Your task to perform on an android device: toggle sleep mode Image 0: 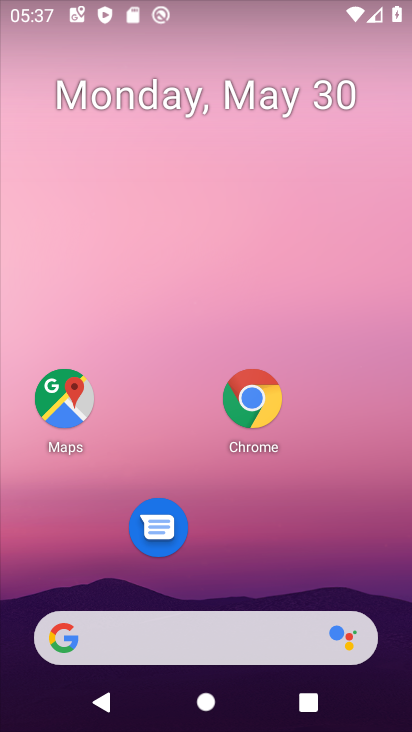
Step 0: drag from (245, 721) to (248, 535)
Your task to perform on an android device: toggle sleep mode Image 1: 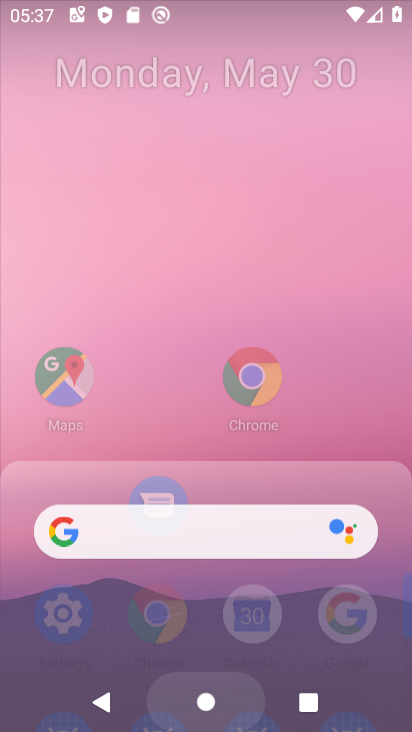
Step 1: click (244, 131)
Your task to perform on an android device: toggle sleep mode Image 2: 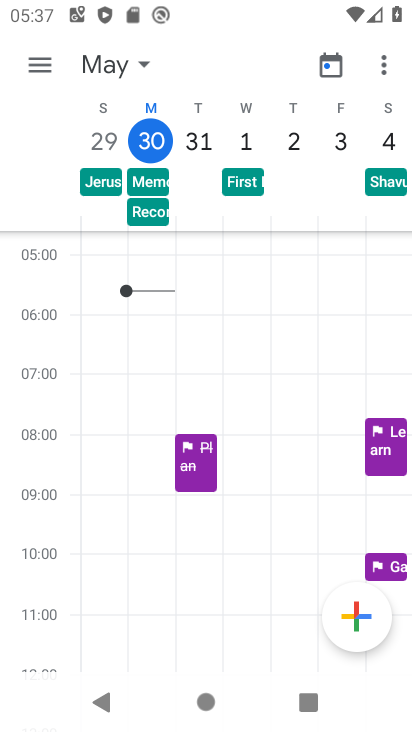
Step 2: press home button
Your task to perform on an android device: toggle sleep mode Image 3: 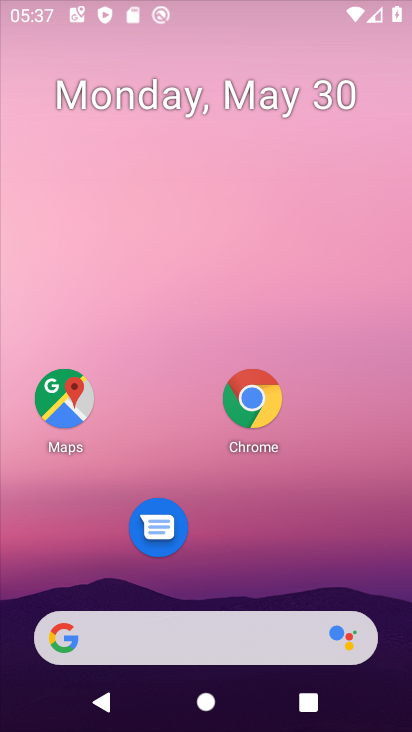
Step 3: drag from (233, 723) to (238, 661)
Your task to perform on an android device: toggle sleep mode Image 4: 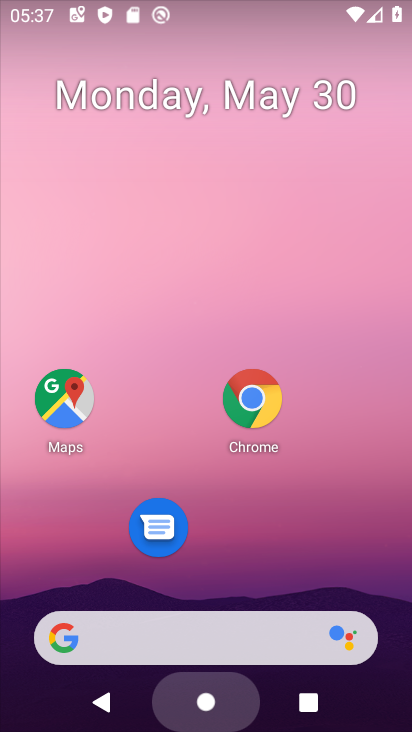
Step 4: click (238, 387)
Your task to perform on an android device: toggle sleep mode Image 5: 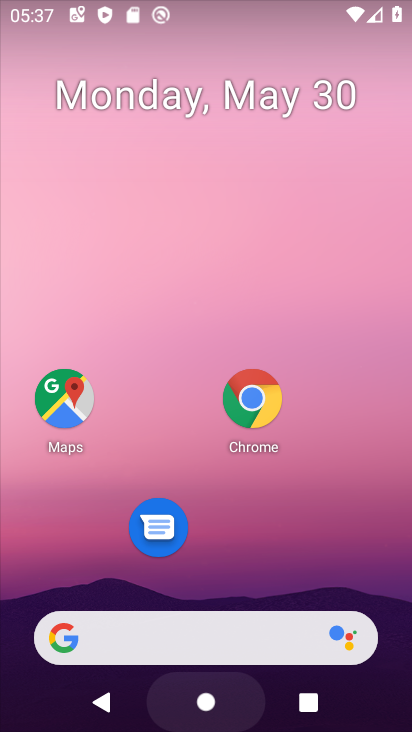
Step 5: click (238, 59)
Your task to perform on an android device: toggle sleep mode Image 6: 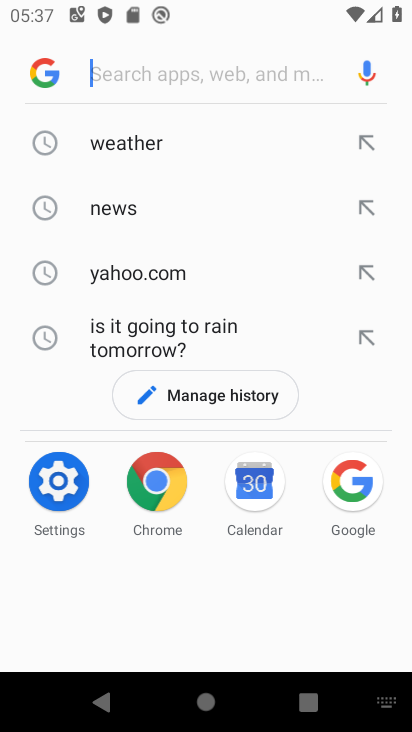
Step 6: press home button
Your task to perform on an android device: toggle sleep mode Image 7: 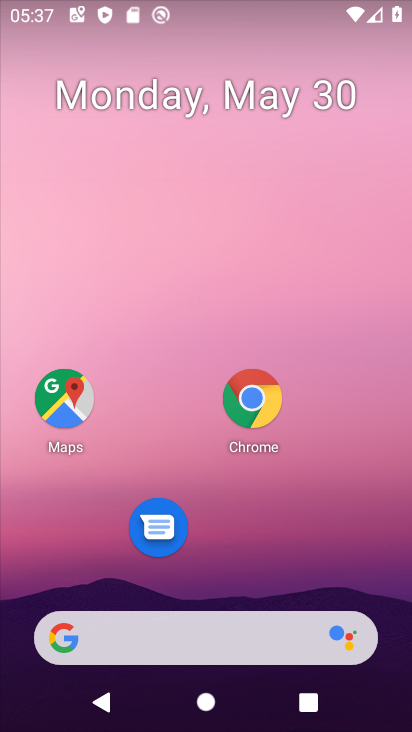
Step 7: drag from (239, 724) to (244, 35)
Your task to perform on an android device: toggle sleep mode Image 8: 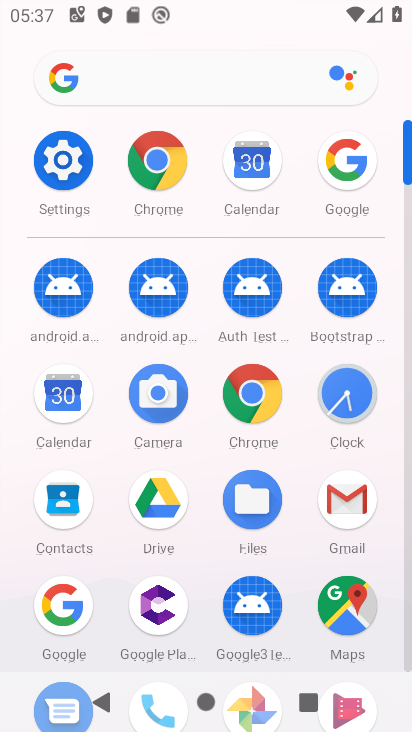
Step 8: click (48, 164)
Your task to perform on an android device: toggle sleep mode Image 9: 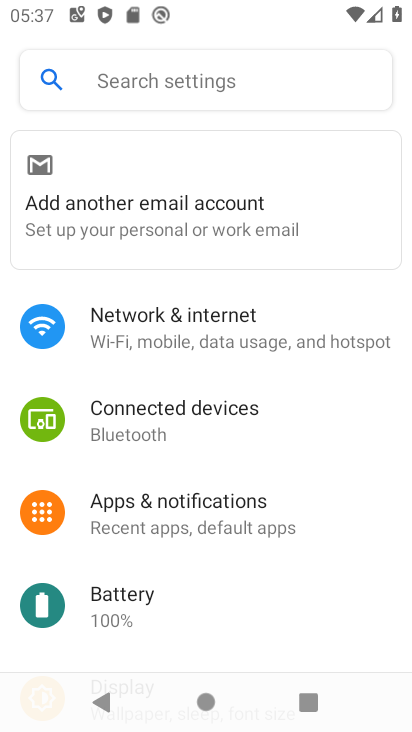
Step 9: task complete